Your task to perform on an android device: show emergency info Image 0: 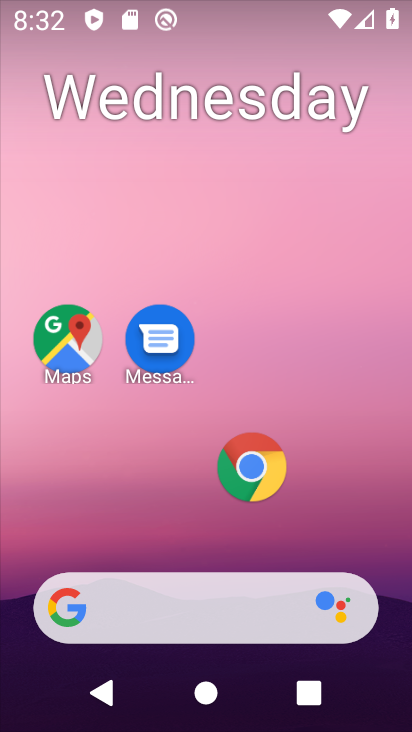
Step 0: press home button
Your task to perform on an android device: show emergency info Image 1: 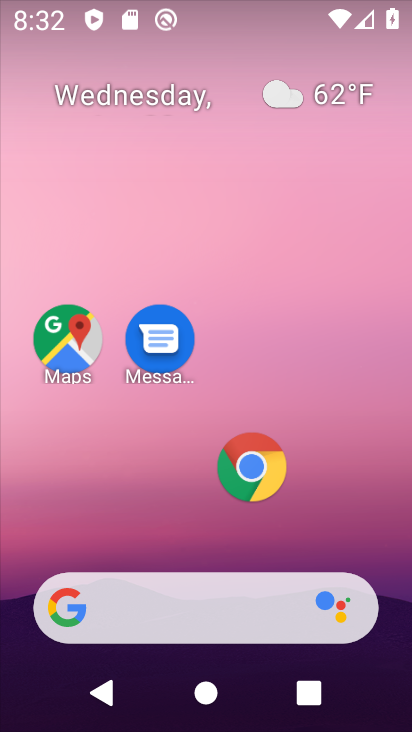
Step 1: drag from (198, 523) to (152, 95)
Your task to perform on an android device: show emergency info Image 2: 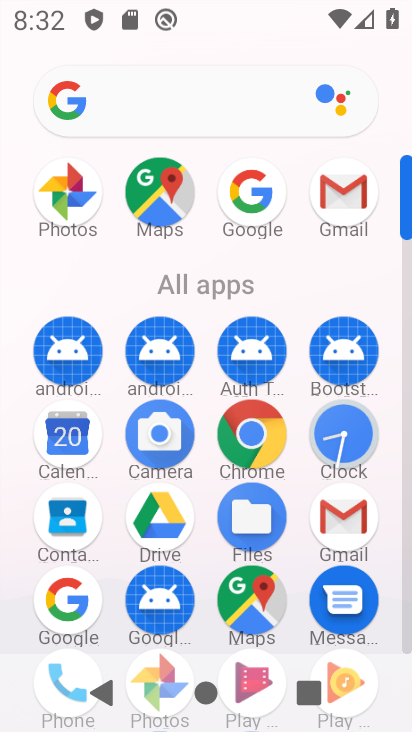
Step 2: drag from (111, 492) to (111, 156)
Your task to perform on an android device: show emergency info Image 3: 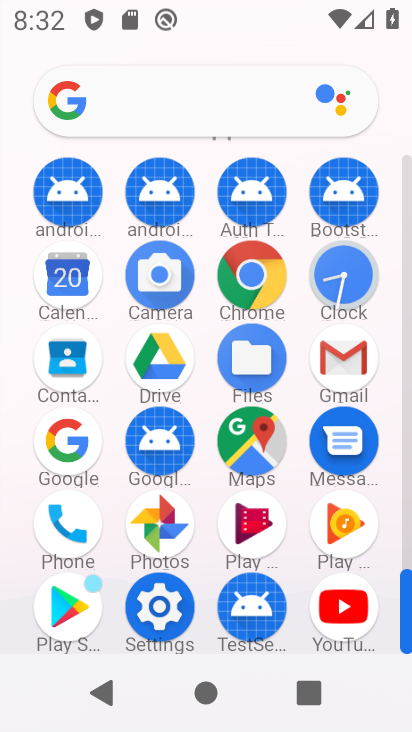
Step 3: click (160, 607)
Your task to perform on an android device: show emergency info Image 4: 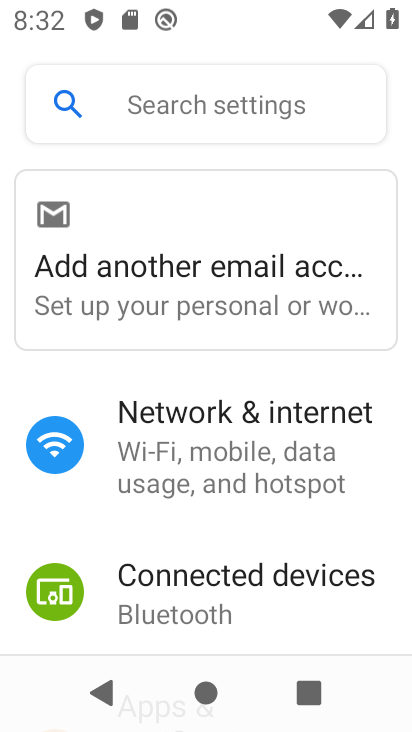
Step 4: drag from (285, 635) to (277, 130)
Your task to perform on an android device: show emergency info Image 5: 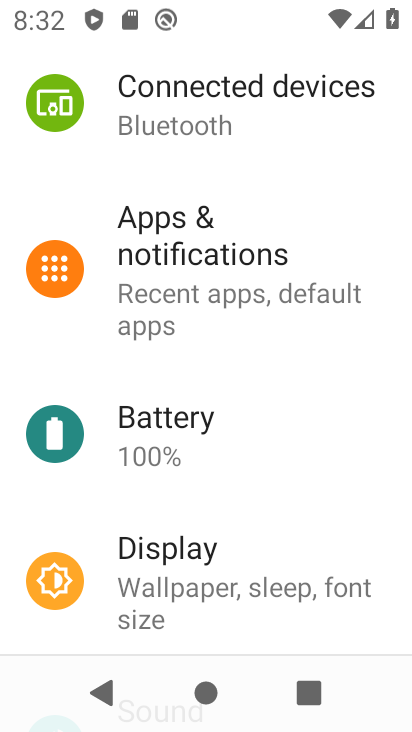
Step 5: drag from (256, 493) to (237, 141)
Your task to perform on an android device: show emergency info Image 6: 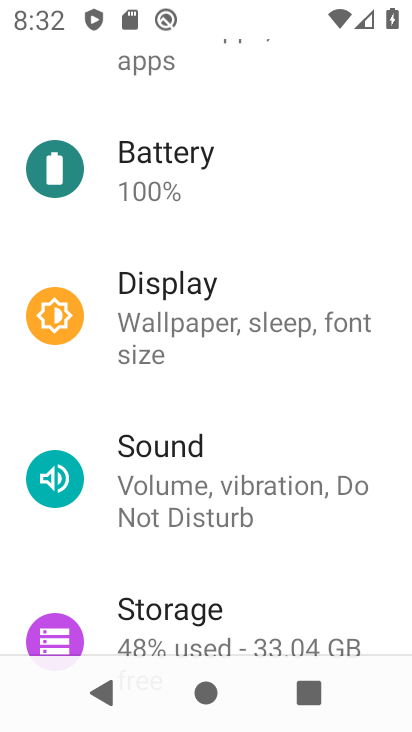
Step 6: drag from (277, 536) to (294, 75)
Your task to perform on an android device: show emergency info Image 7: 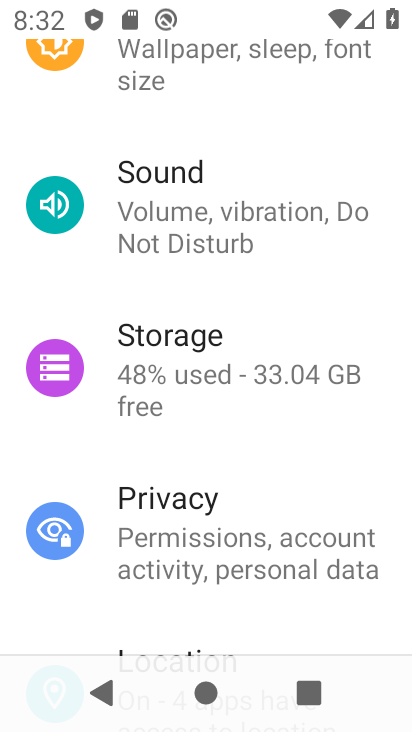
Step 7: drag from (245, 606) to (247, 312)
Your task to perform on an android device: show emergency info Image 8: 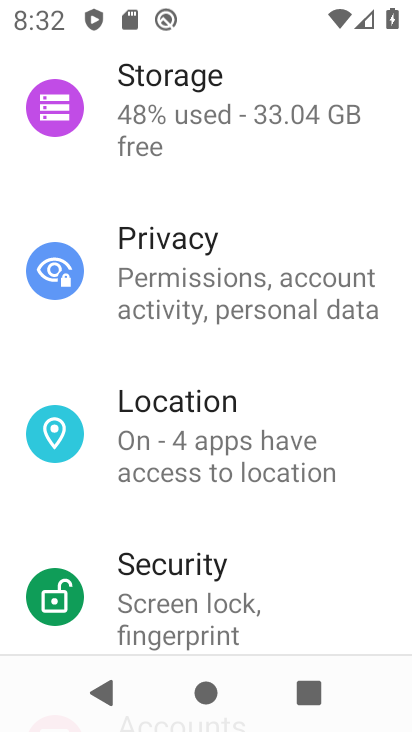
Step 8: drag from (262, 529) to (260, 14)
Your task to perform on an android device: show emergency info Image 9: 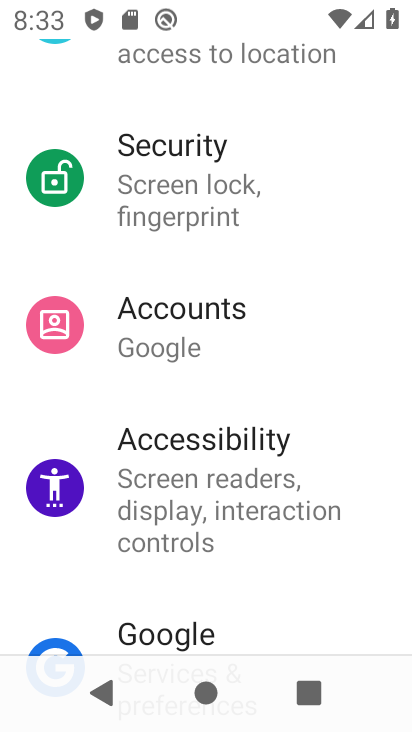
Step 9: drag from (275, 579) to (272, 36)
Your task to perform on an android device: show emergency info Image 10: 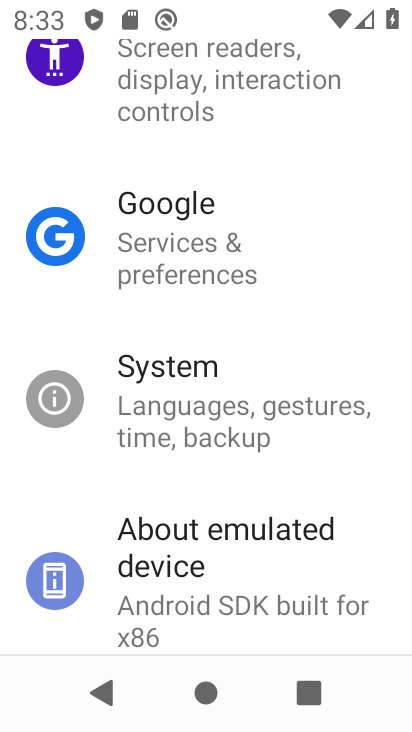
Step 10: drag from (259, 568) to (274, 209)
Your task to perform on an android device: show emergency info Image 11: 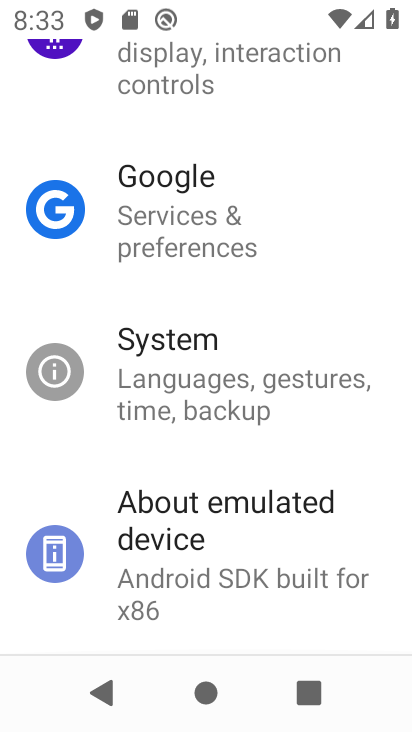
Step 11: click (203, 546)
Your task to perform on an android device: show emergency info Image 12: 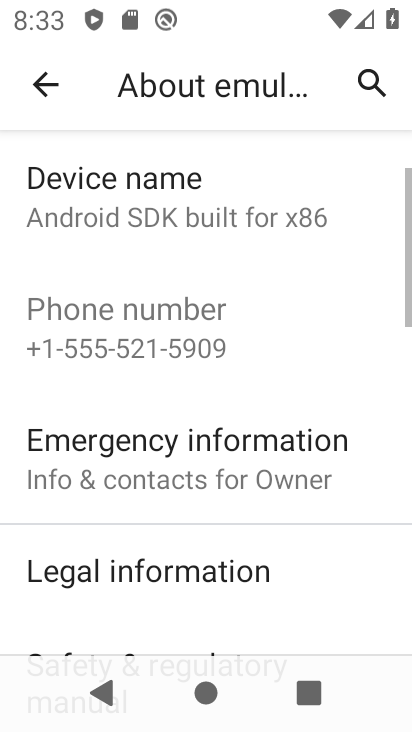
Step 12: click (195, 464)
Your task to perform on an android device: show emergency info Image 13: 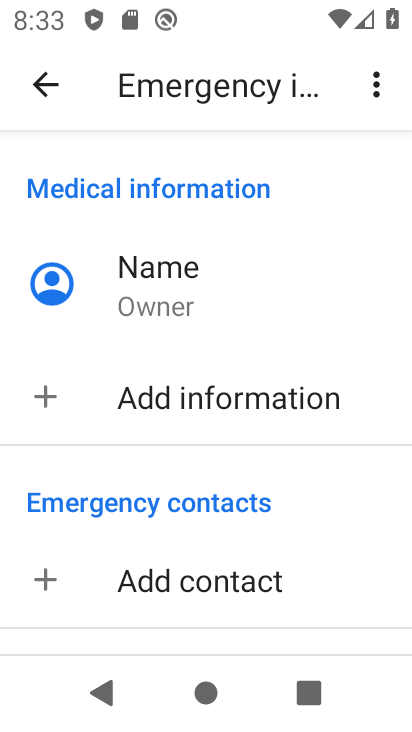
Step 13: task complete